Your task to perform on an android device: Open Chrome and go to the settings page Image 0: 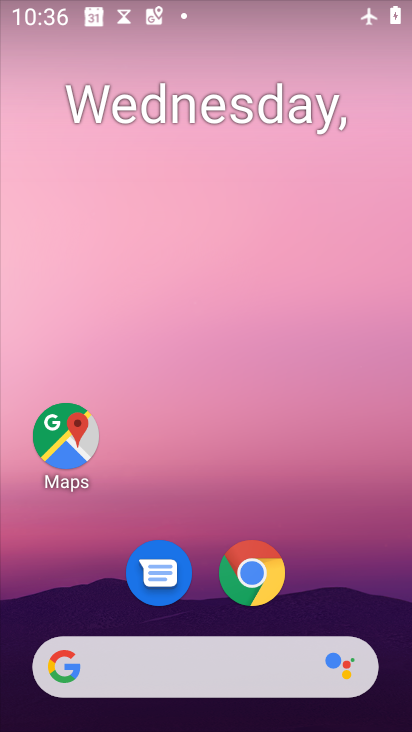
Step 0: drag from (340, 510) to (321, 280)
Your task to perform on an android device: Open Chrome and go to the settings page Image 1: 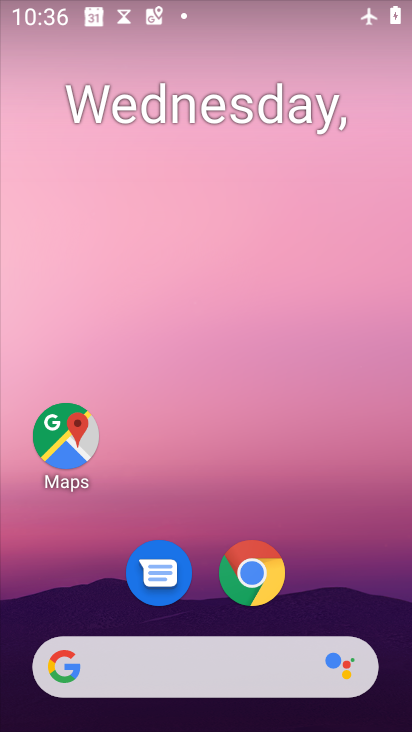
Step 1: drag from (289, 583) to (312, 234)
Your task to perform on an android device: Open Chrome and go to the settings page Image 2: 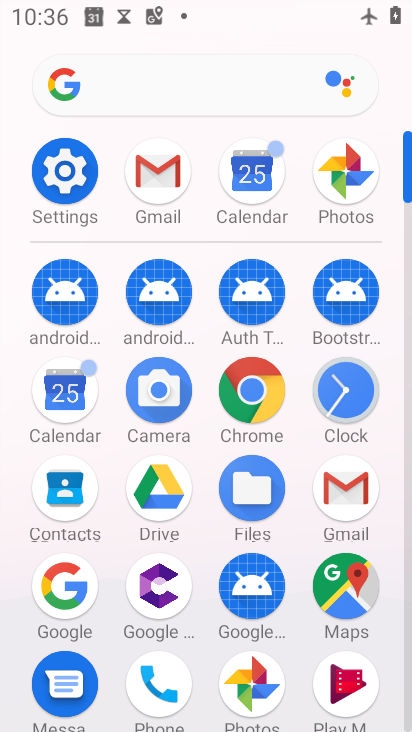
Step 2: click (260, 386)
Your task to perform on an android device: Open Chrome and go to the settings page Image 3: 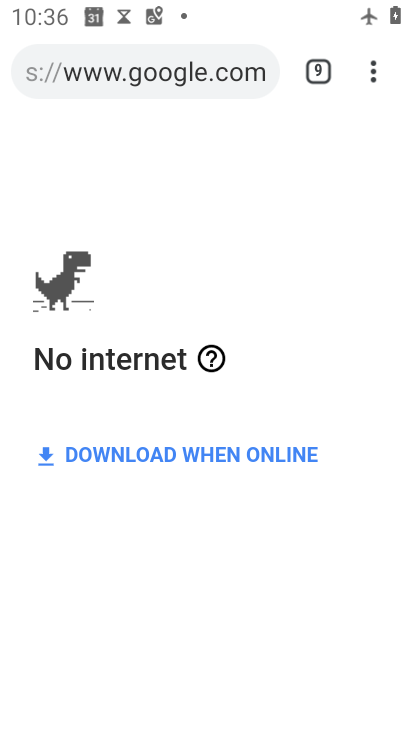
Step 3: click (369, 67)
Your task to perform on an android device: Open Chrome and go to the settings page Image 4: 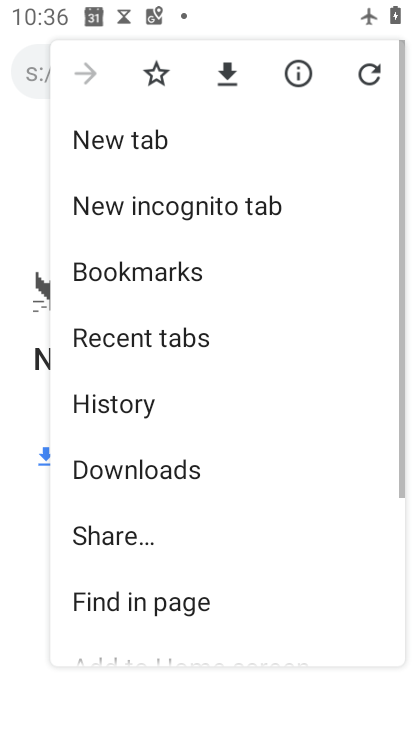
Step 4: drag from (208, 571) to (256, 248)
Your task to perform on an android device: Open Chrome and go to the settings page Image 5: 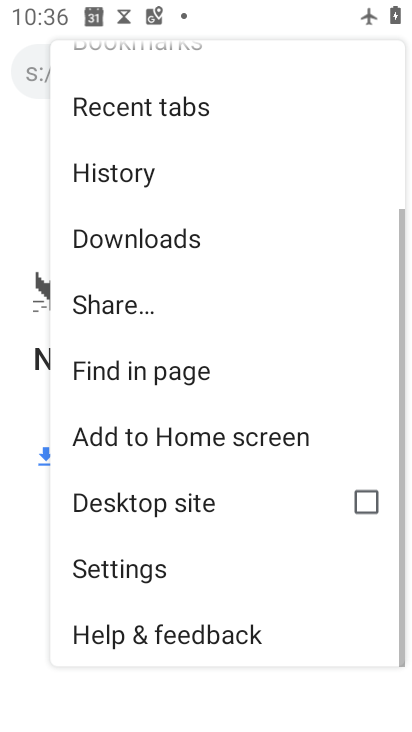
Step 5: click (153, 557)
Your task to perform on an android device: Open Chrome and go to the settings page Image 6: 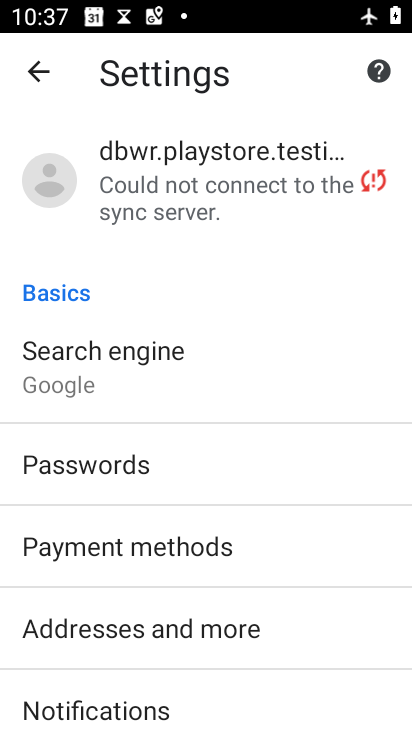
Step 6: task complete